Your task to perform on an android device: turn off priority inbox in the gmail app Image 0: 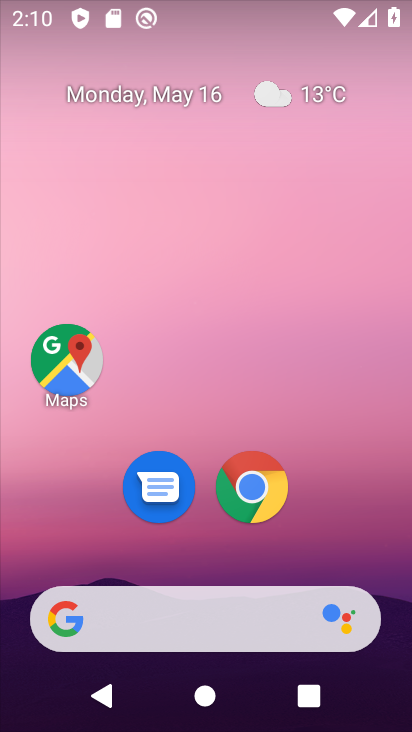
Step 0: drag from (331, 530) to (83, 71)
Your task to perform on an android device: turn off priority inbox in the gmail app Image 1: 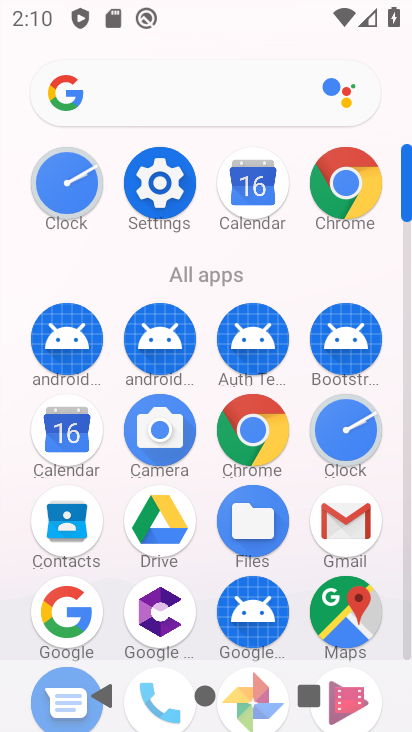
Step 1: click (353, 534)
Your task to perform on an android device: turn off priority inbox in the gmail app Image 2: 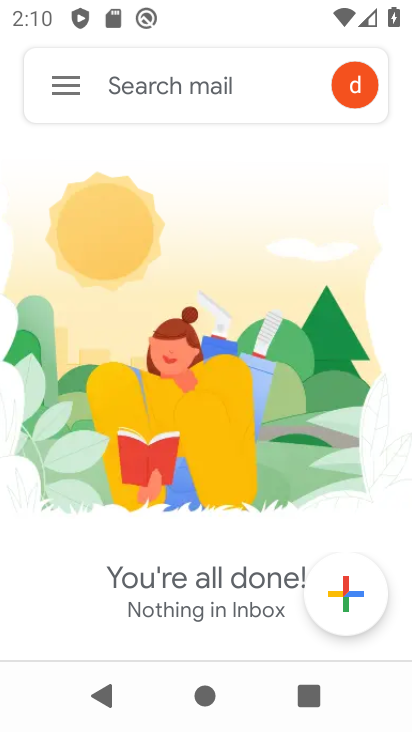
Step 2: click (62, 99)
Your task to perform on an android device: turn off priority inbox in the gmail app Image 3: 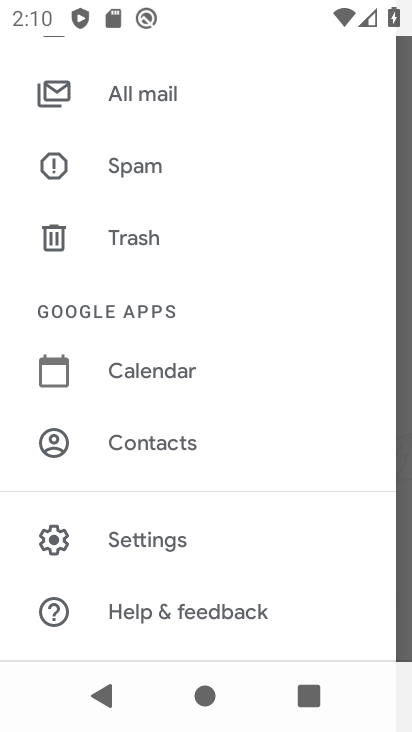
Step 3: click (146, 539)
Your task to perform on an android device: turn off priority inbox in the gmail app Image 4: 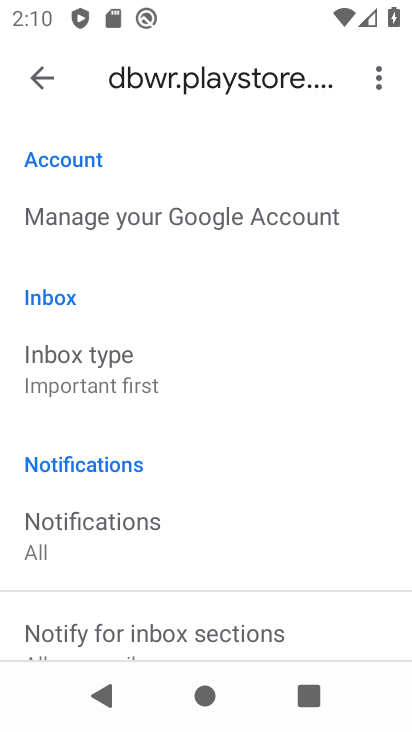
Step 4: drag from (176, 586) to (141, 512)
Your task to perform on an android device: turn off priority inbox in the gmail app Image 5: 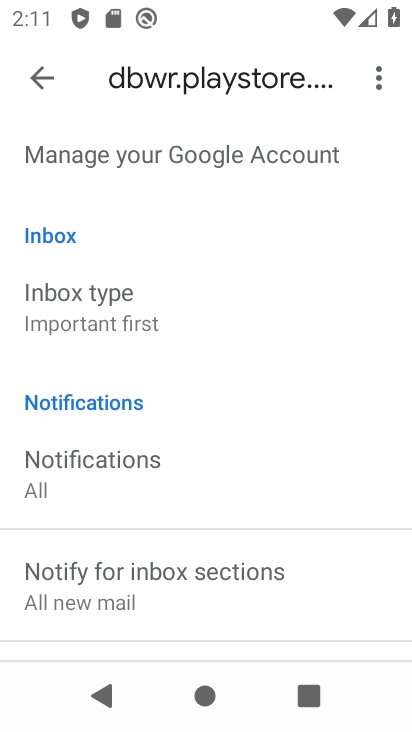
Step 5: click (89, 321)
Your task to perform on an android device: turn off priority inbox in the gmail app Image 6: 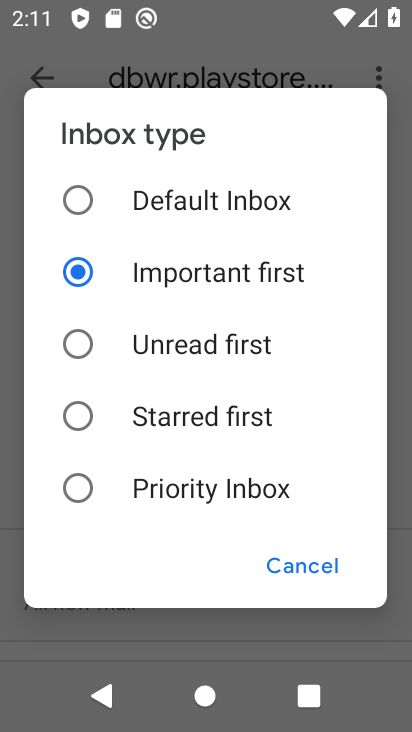
Step 6: task complete